Your task to perform on an android device: Go to CNN.com Image 0: 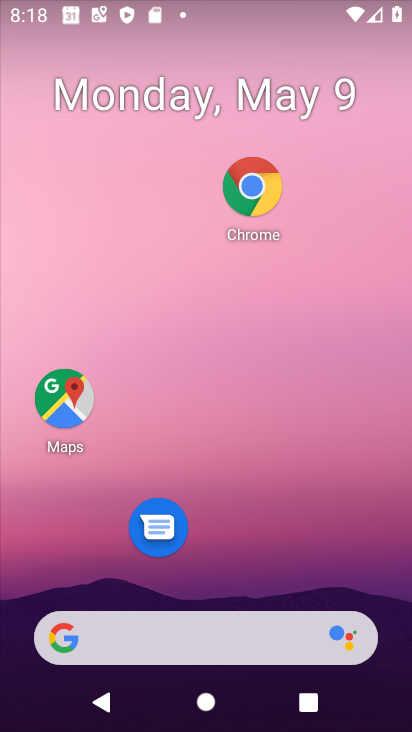
Step 0: click (243, 184)
Your task to perform on an android device: Go to CNN.com Image 1: 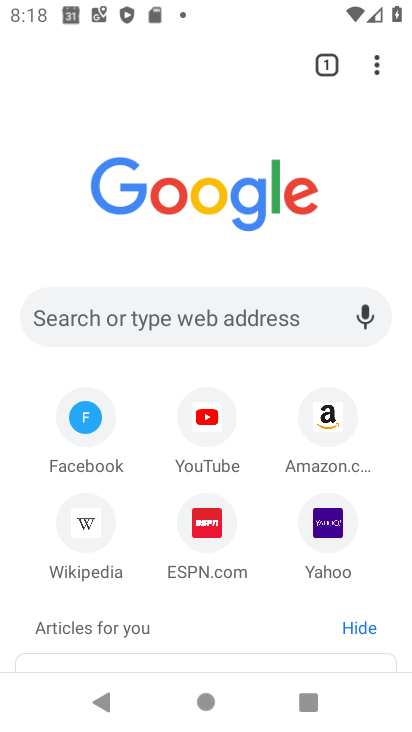
Step 1: click (179, 317)
Your task to perform on an android device: Go to CNN.com Image 2: 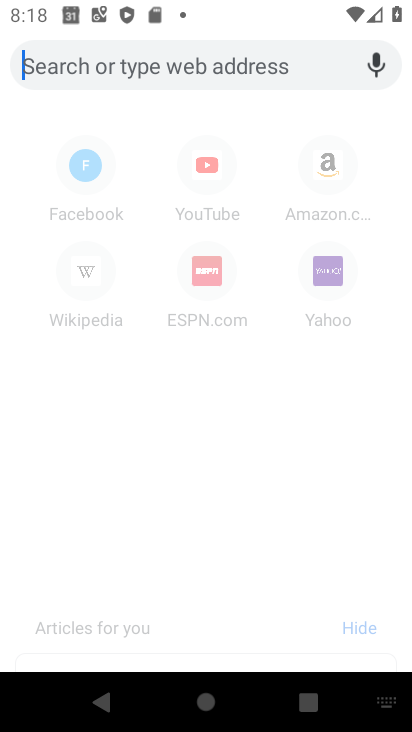
Step 2: type "cnn.com"
Your task to perform on an android device: Go to CNN.com Image 3: 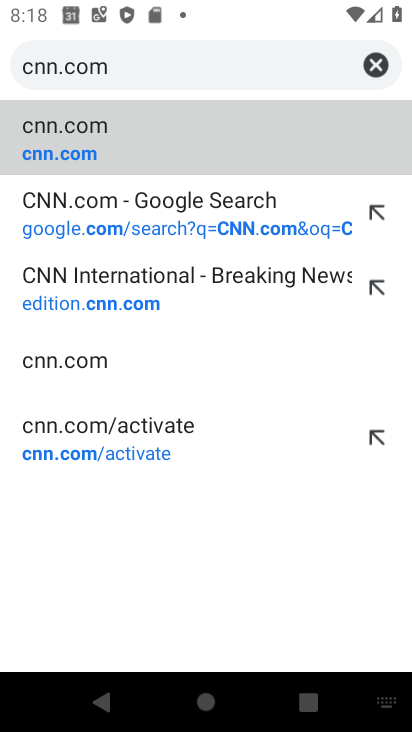
Step 3: click (108, 138)
Your task to perform on an android device: Go to CNN.com Image 4: 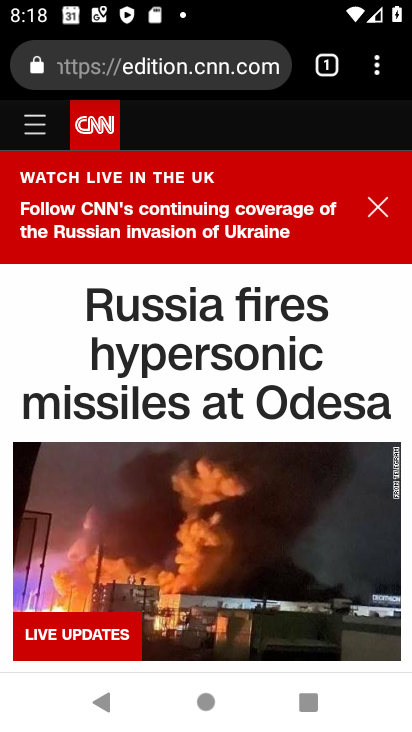
Step 4: task complete